Your task to perform on an android device: star an email in the gmail app Image 0: 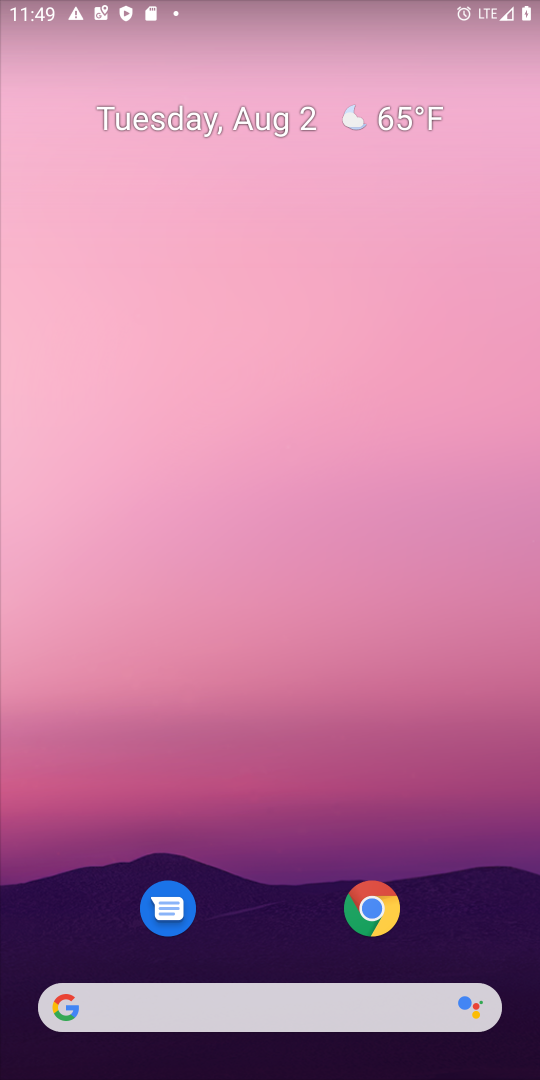
Step 0: drag from (304, 875) to (299, 227)
Your task to perform on an android device: star an email in the gmail app Image 1: 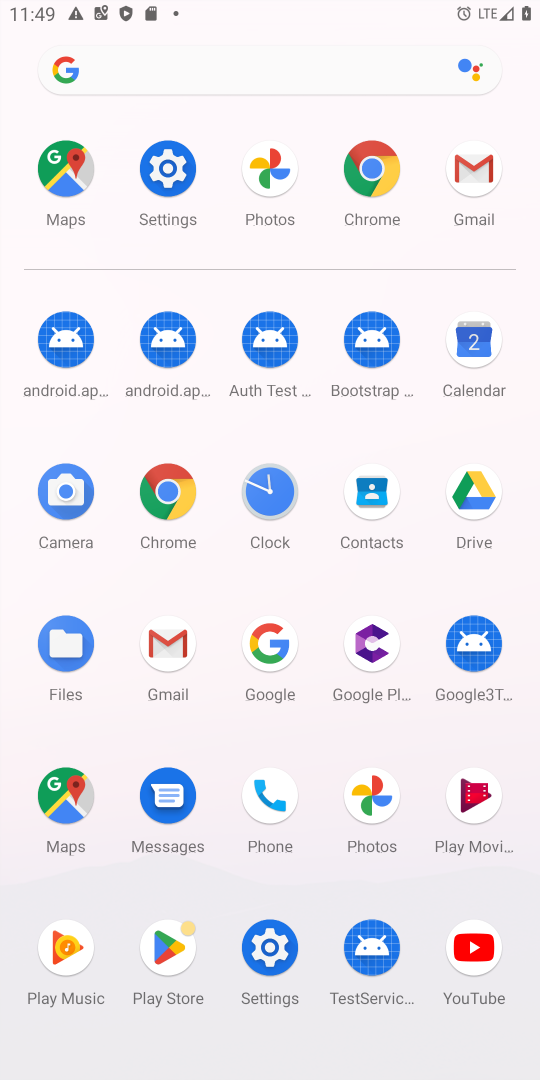
Step 1: click (160, 671)
Your task to perform on an android device: star an email in the gmail app Image 2: 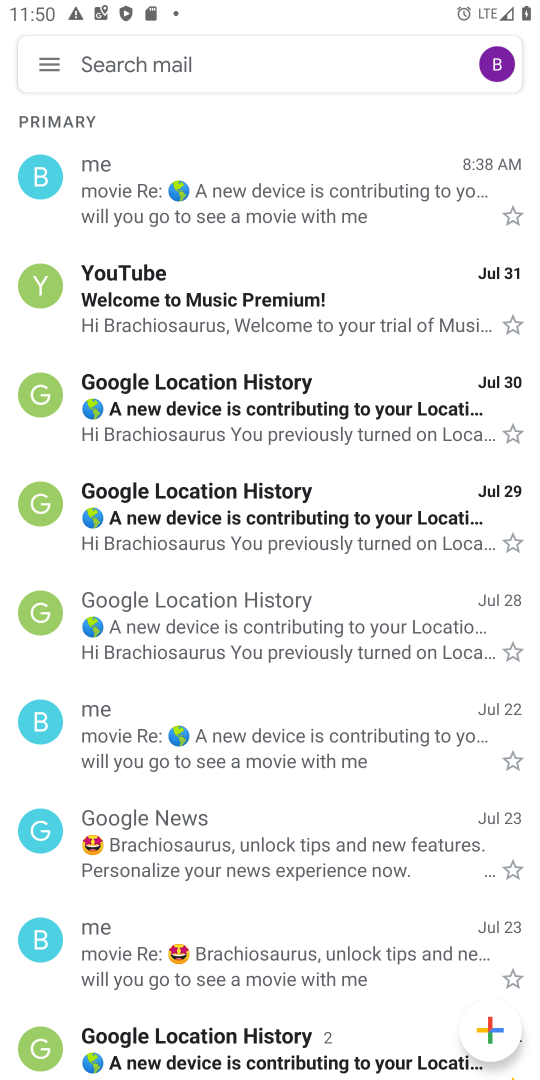
Step 2: click (249, 210)
Your task to perform on an android device: star an email in the gmail app Image 3: 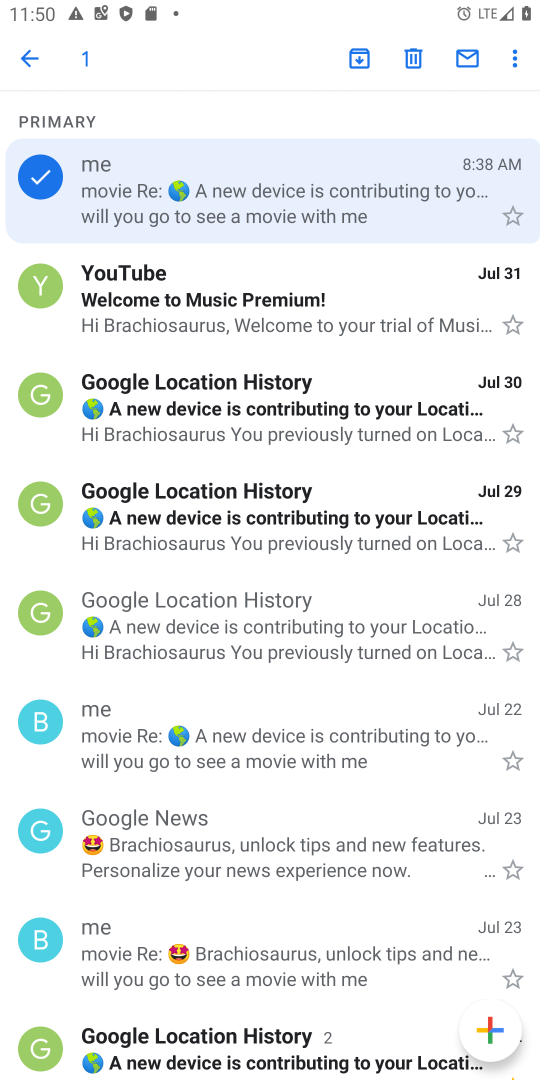
Step 3: click (508, 66)
Your task to perform on an android device: star an email in the gmail app Image 4: 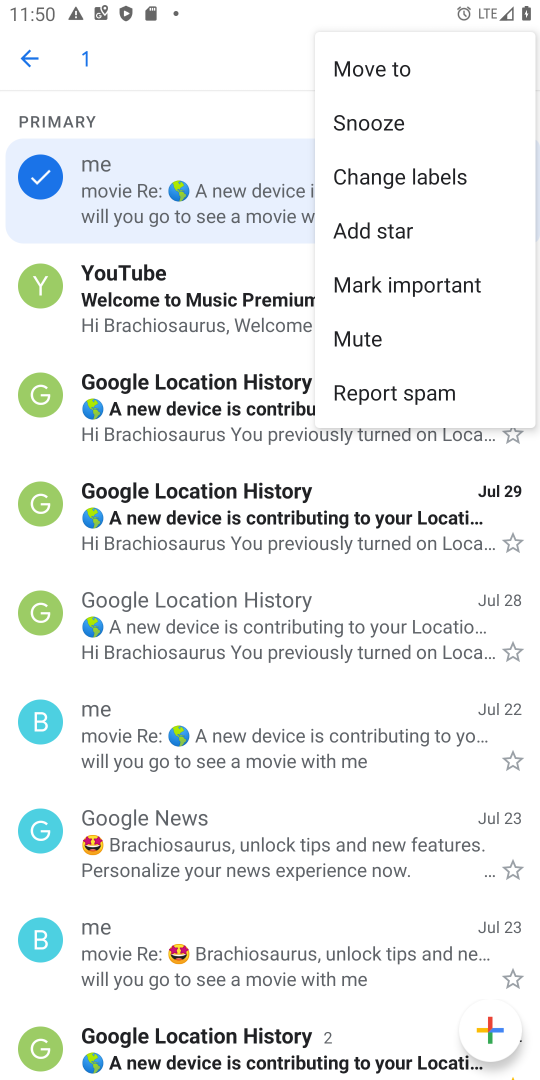
Step 4: click (200, 204)
Your task to perform on an android device: star an email in the gmail app Image 5: 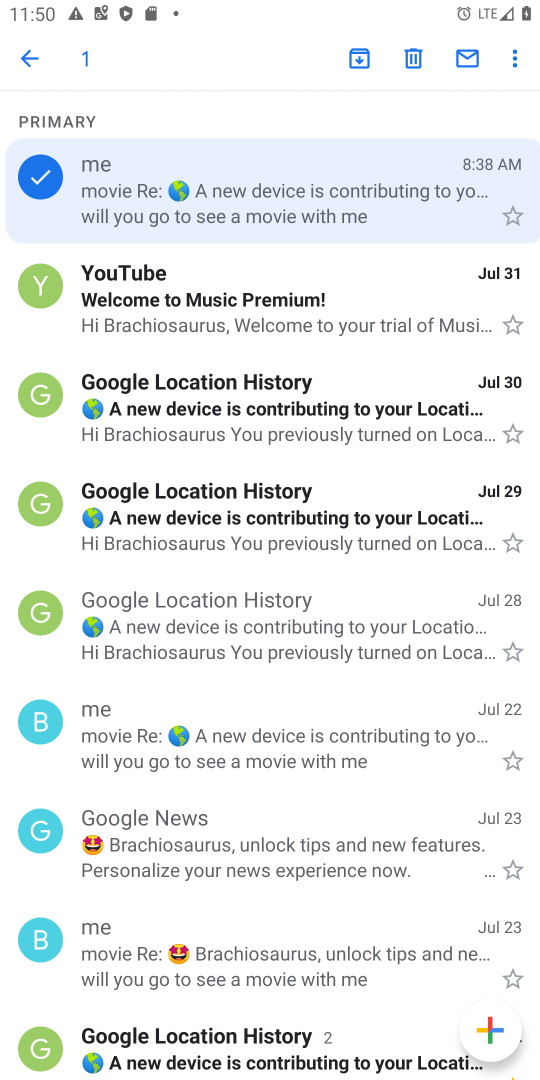
Step 5: click (200, 204)
Your task to perform on an android device: star an email in the gmail app Image 6: 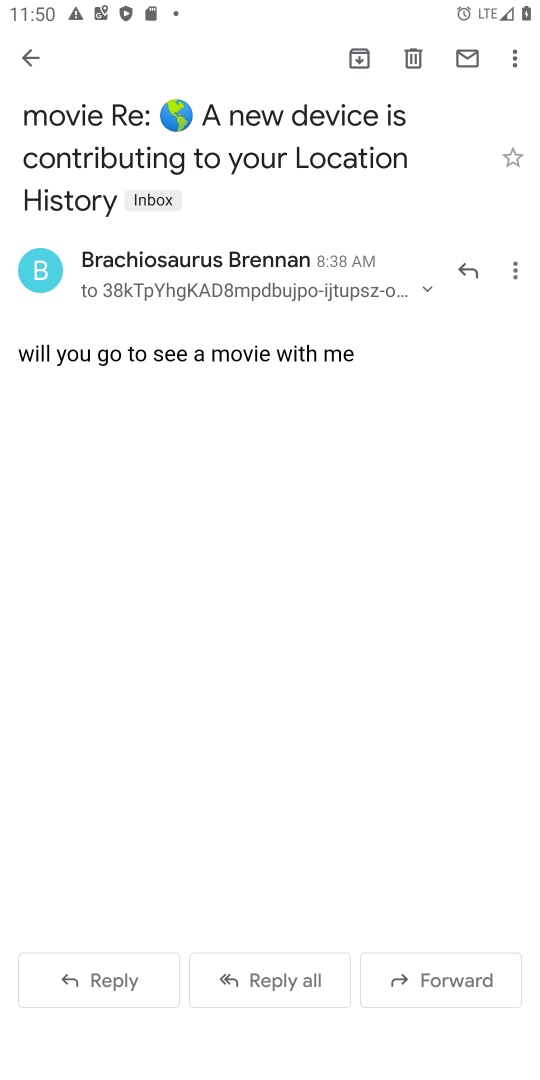
Step 6: click (521, 157)
Your task to perform on an android device: star an email in the gmail app Image 7: 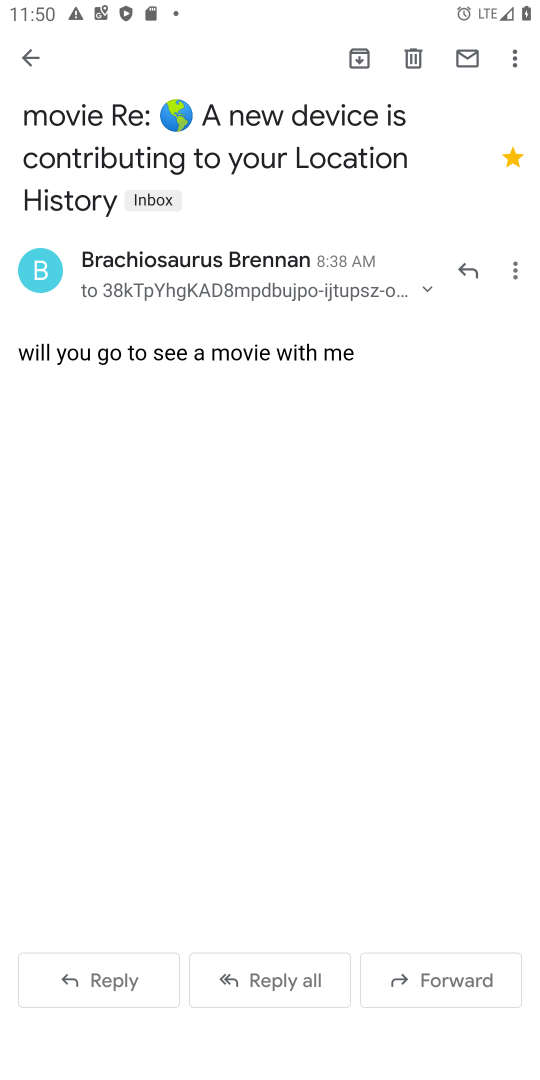
Step 7: task complete